Your task to perform on an android device: Open the map Image 0: 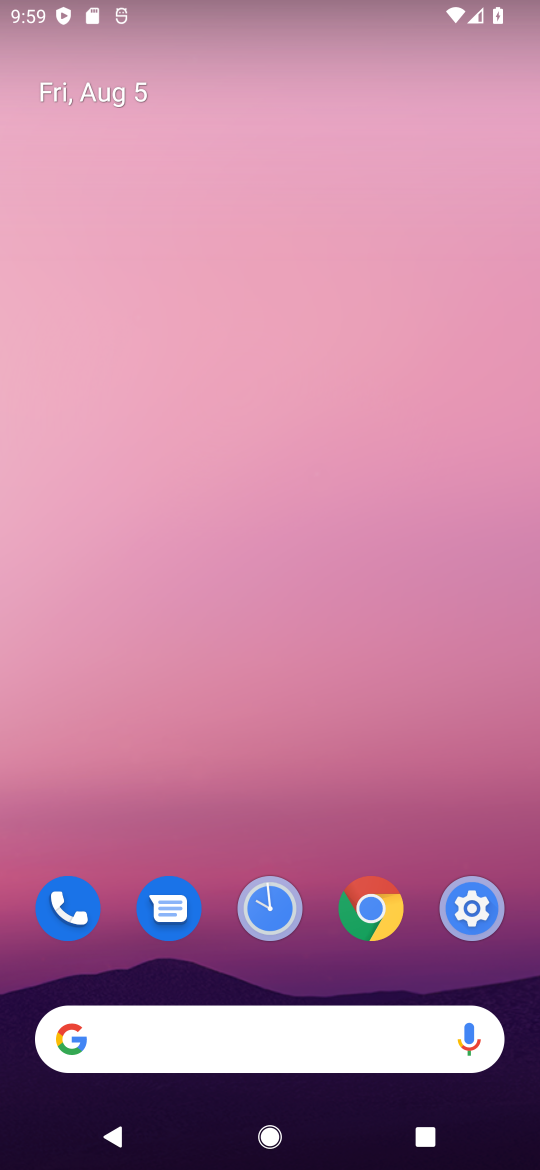
Step 0: click (502, 916)
Your task to perform on an android device: Open the map Image 1: 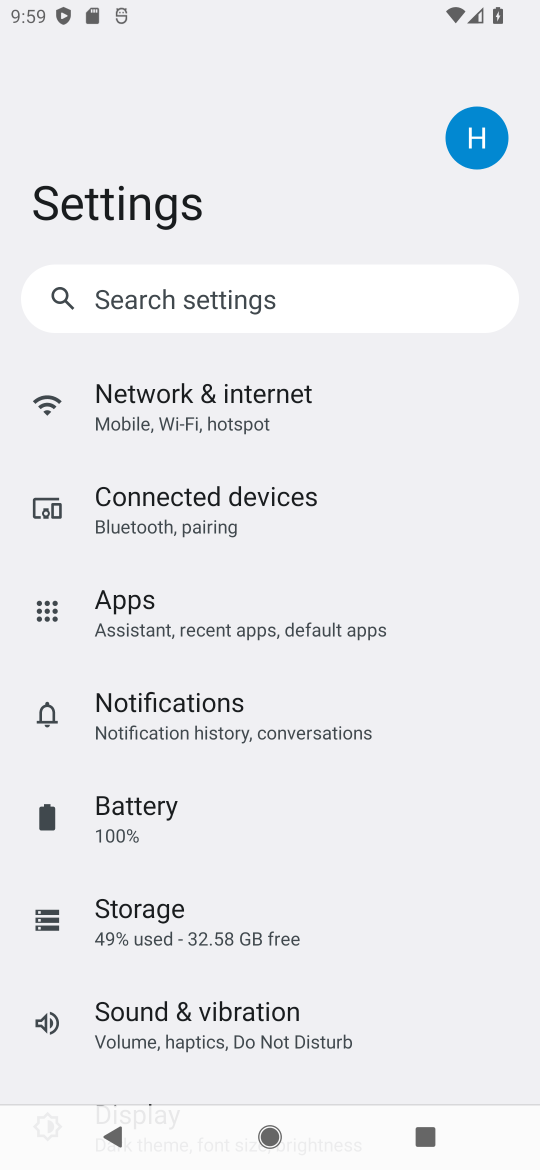
Step 1: task complete